Your task to perform on an android device: remove spam from my inbox in the gmail app Image 0: 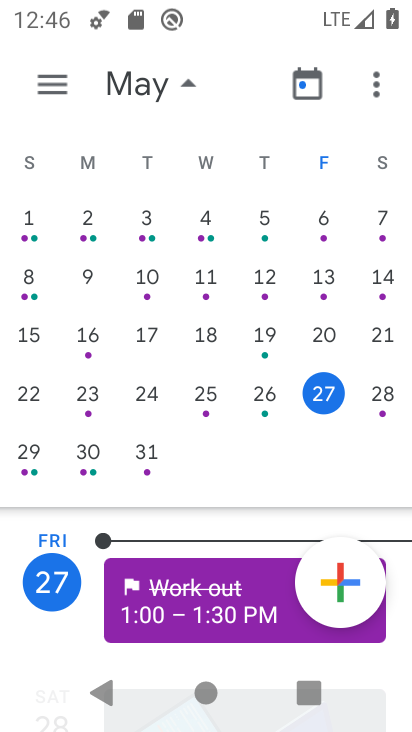
Step 0: press home button
Your task to perform on an android device: remove spam from my inbox in the gmail app Image 1: 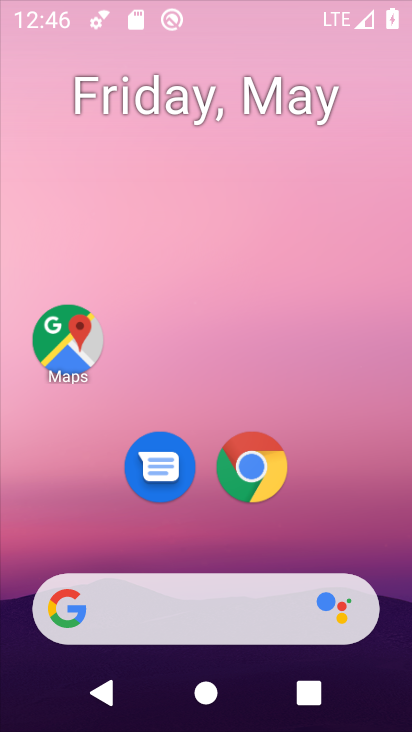
Step 1: drag from (367, 551) to (383, 28)
Your task to perform on an android device: remove spam from my inbox in the gmail app Image 2: 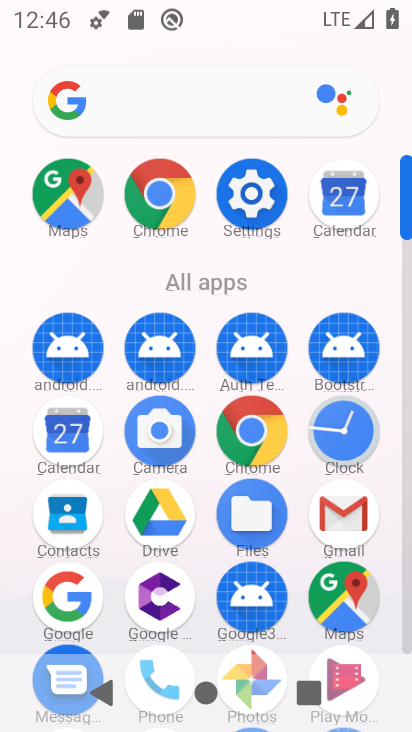
Step 2: click (341, 511)
Your task to perform on an android device: remove spam from my inbox in the gmail app Image 3: 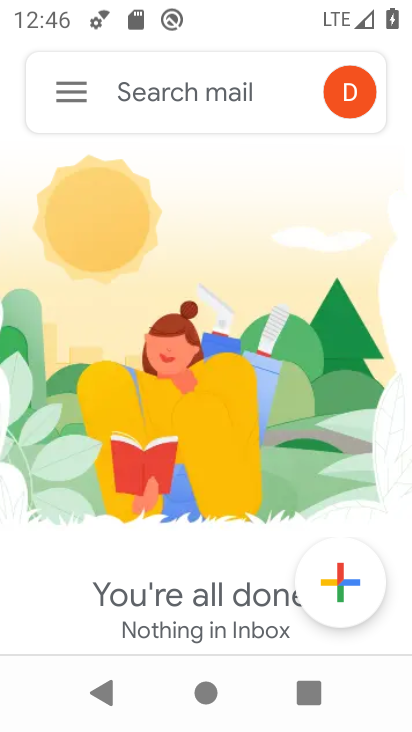
Step 3: click (78, 104)
Your task to perform on an android device: remove spam from my inbox in the gmail app Image 4: 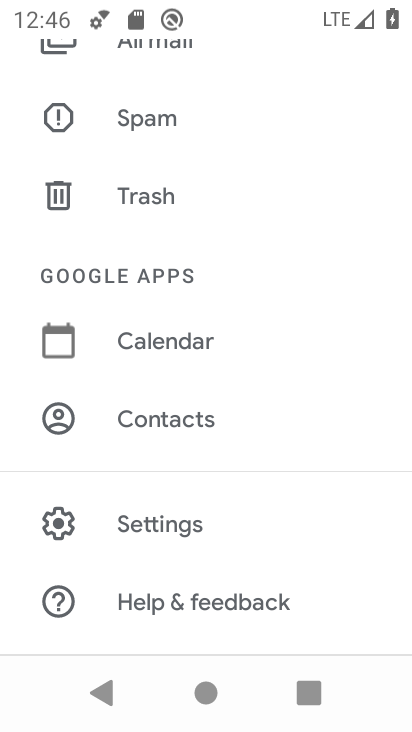
Step 4: click (125, 137)
Your task to perform on an android device: remove spam from my inbox in the gmail app Image 5: 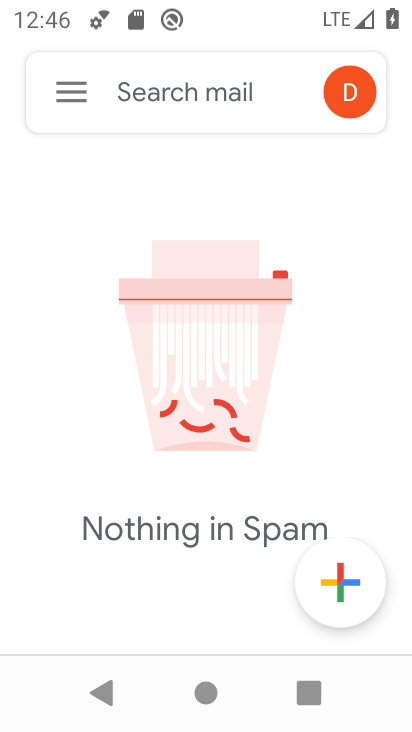
Step 5: task complete